Your task to perform on an android device: open app "Roku - Official Remote Control" (install if not already installed) and go to login screen Image 0: 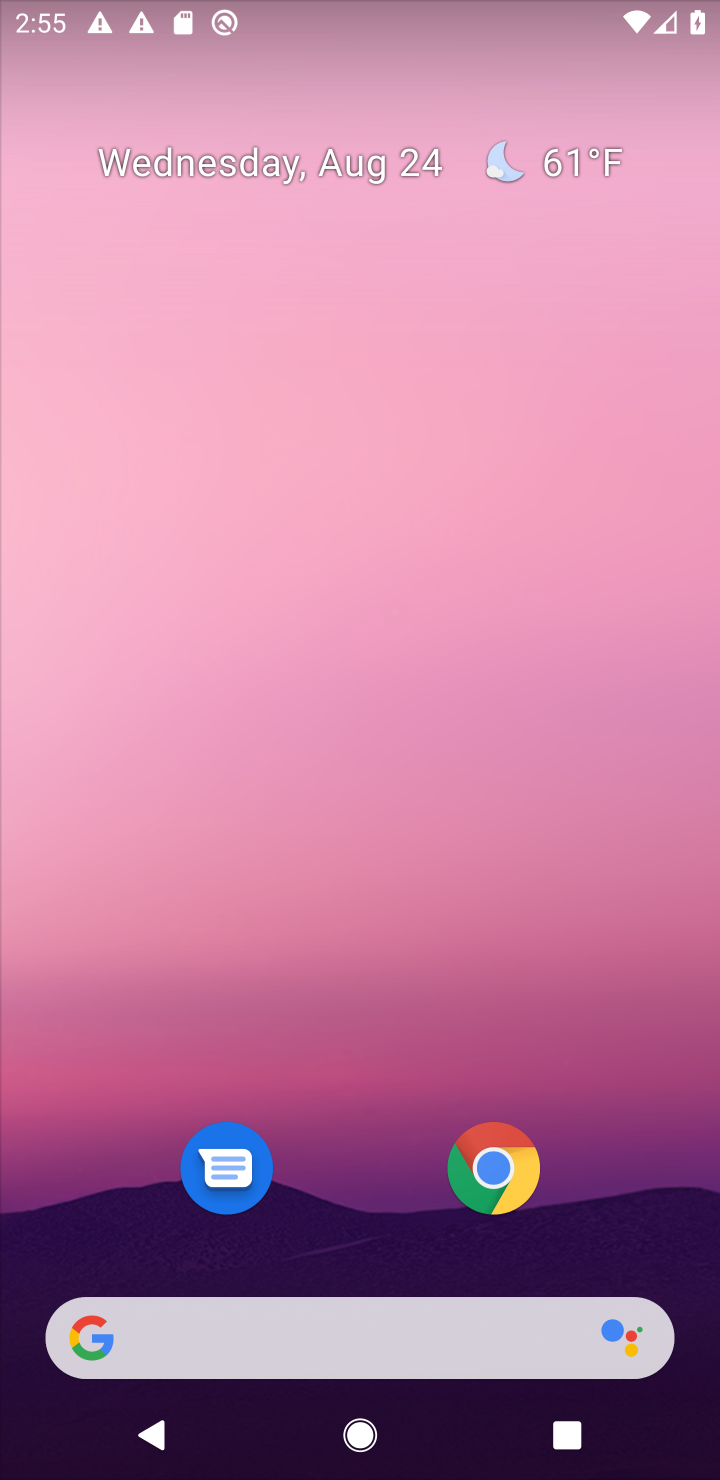
Step 0: drag from (658, 1240) to (502, 3)
Your task to perform on an android device: open app "Roku - Official Remote Control" (install if not already installed) and go to login screen Image 1: 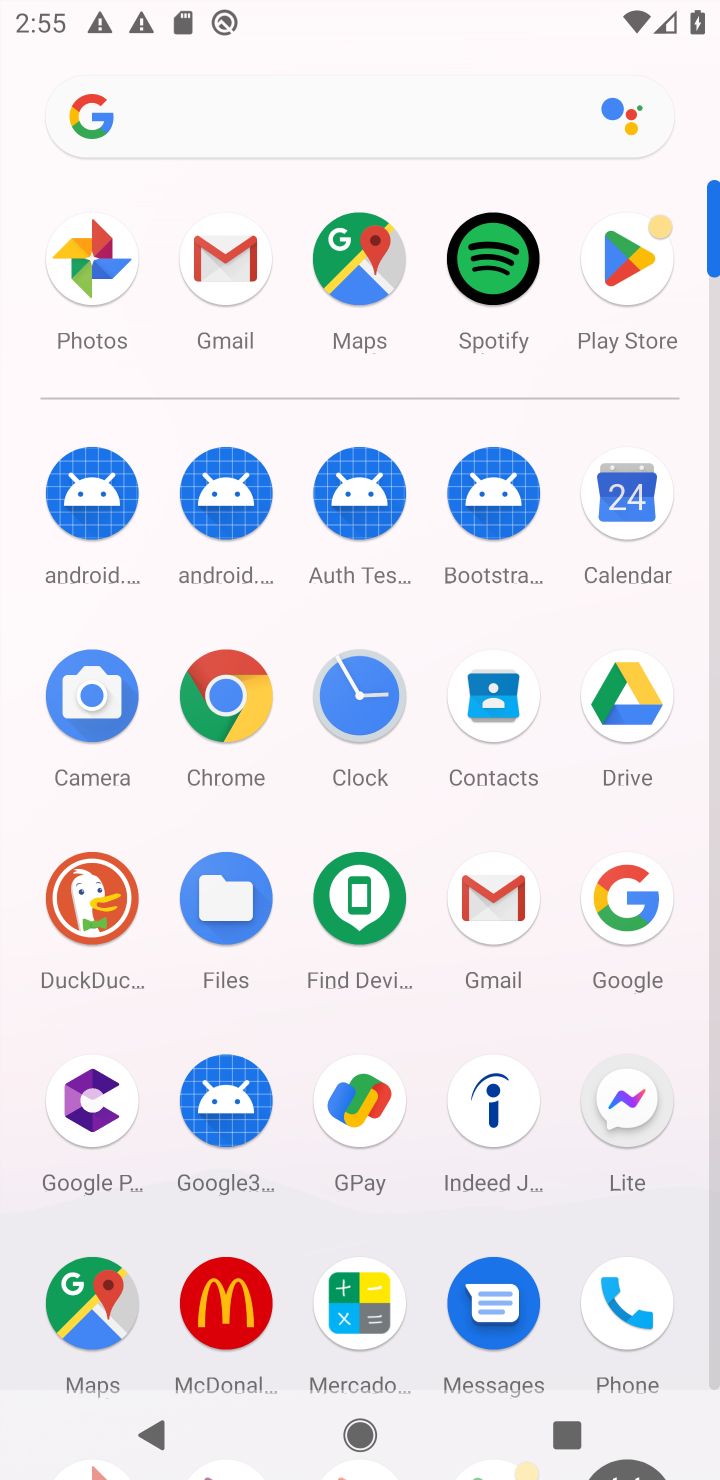
Step 1: click (713, 1358)
Your task to perform on an android device: open app "Roku - Official Remote Control" (install if not already installed) and go to login screen Image 2: 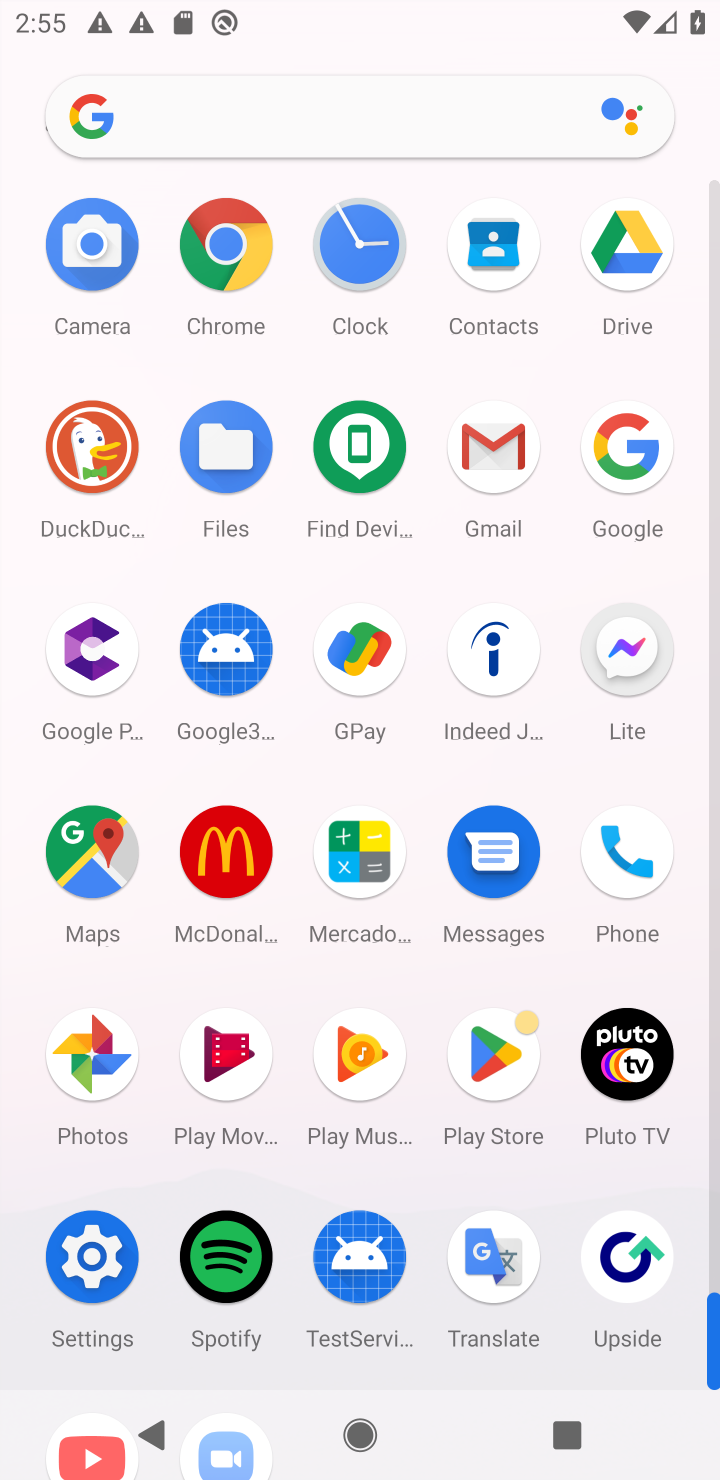
Step 2: click (493, 1050)
Your task to perform on an android device: open app "Roku - Official Remote Control" (install if not already installed) and go to login screen Image 3: 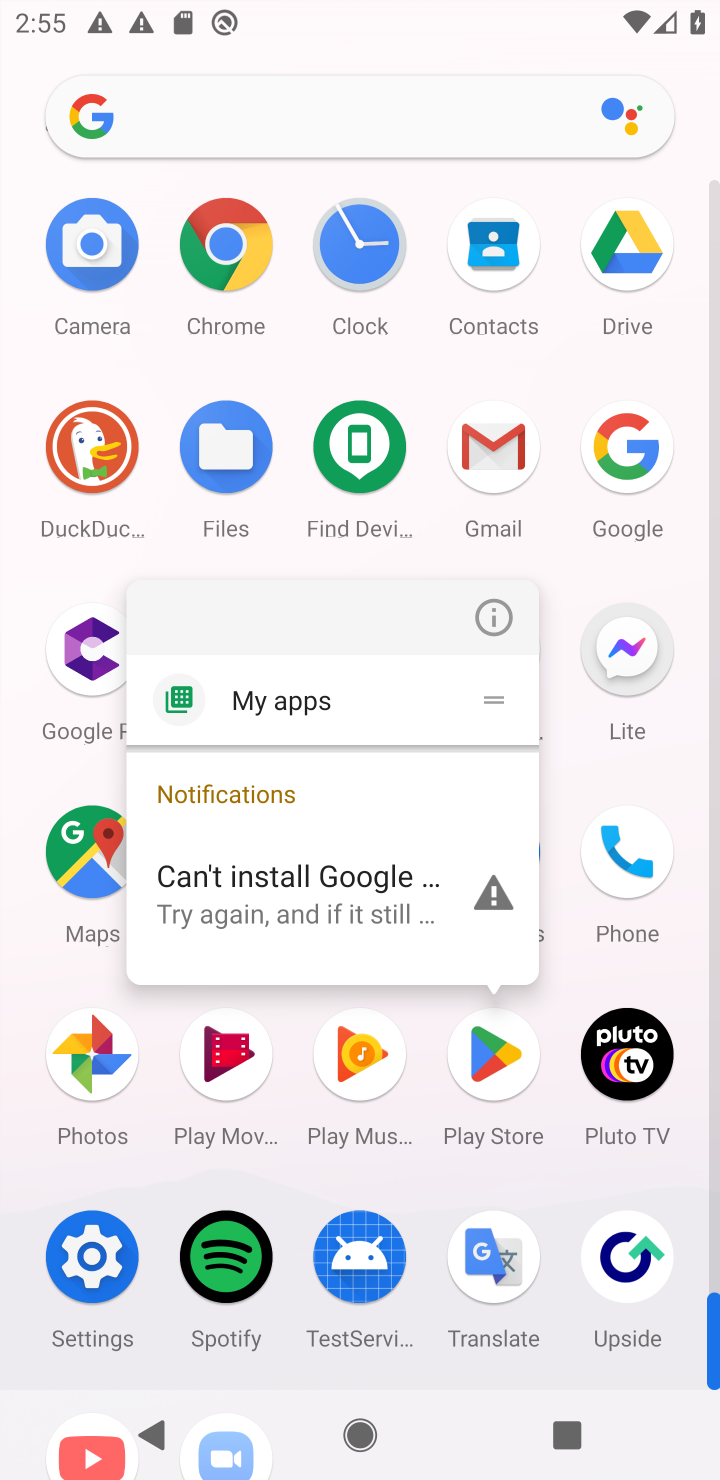
Step 3: click (495, 1054)
Your task to perform on an android device: open app "Roku - Official Remote Control" (install if not already installed) and go to login screen Image 4: 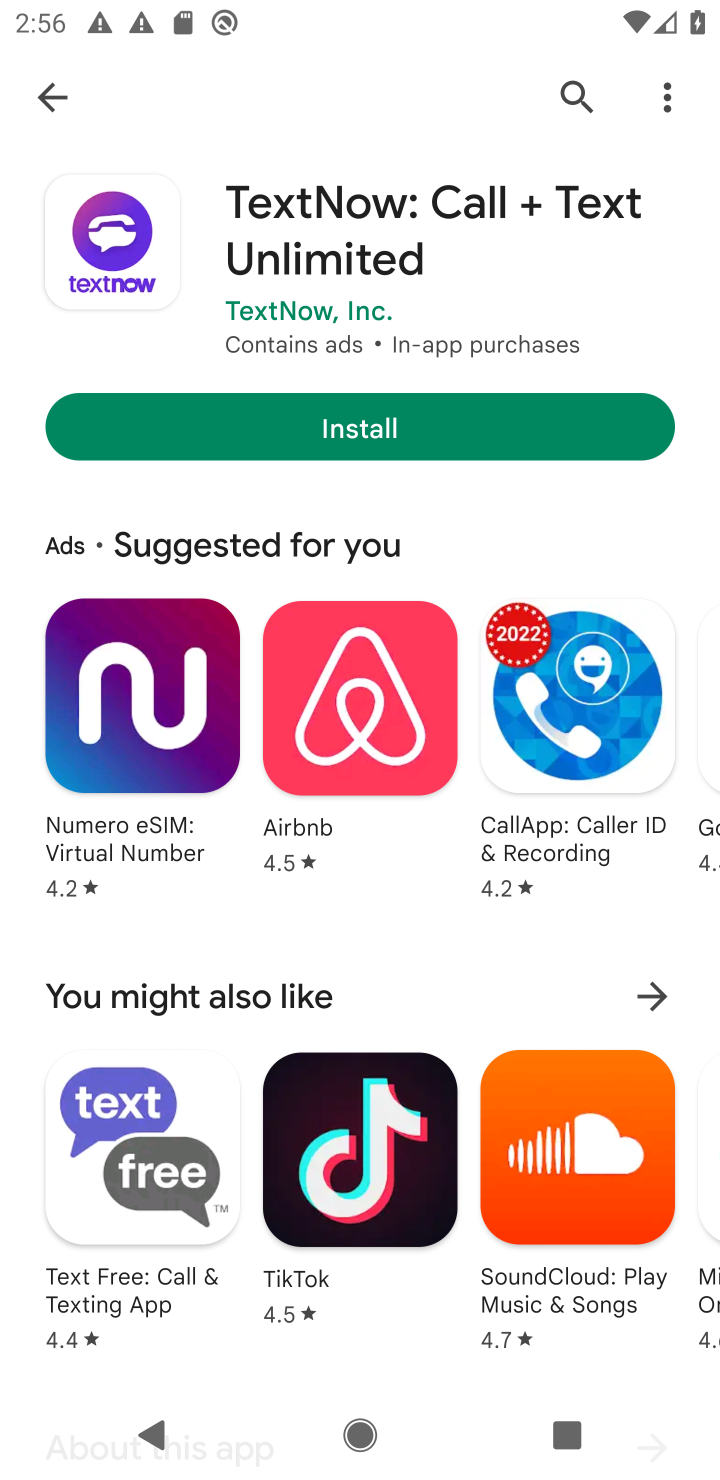
Step 4: click (576, 101)
Your task to perform on an android device: open app "Roku - Official Remote Control" (install if not already installed) and go to login screen Image 5: 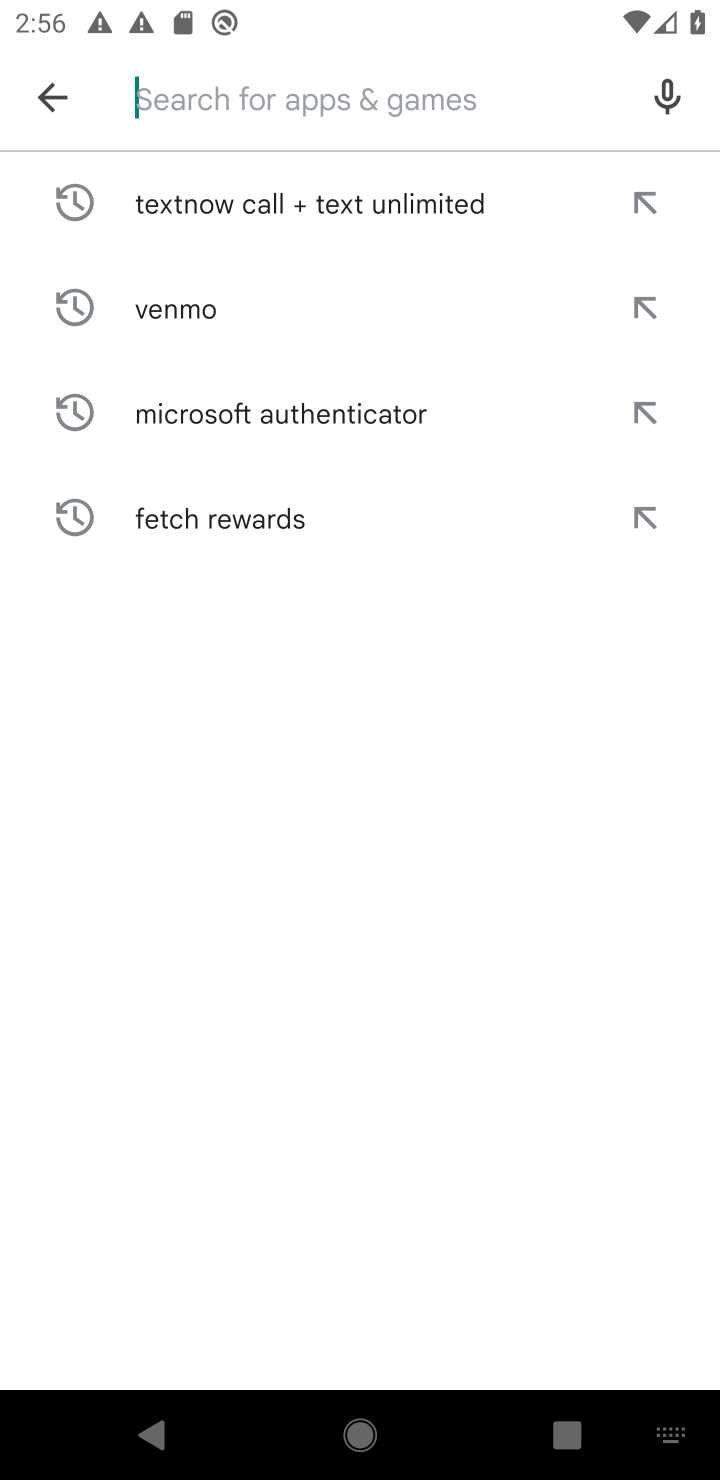
Step 5: type "Roku - Official Remote Contro"
Your task to perform on an android device: open app "Roku - Official Remote Control" (install if not already installed) and go to login screen Image 6: 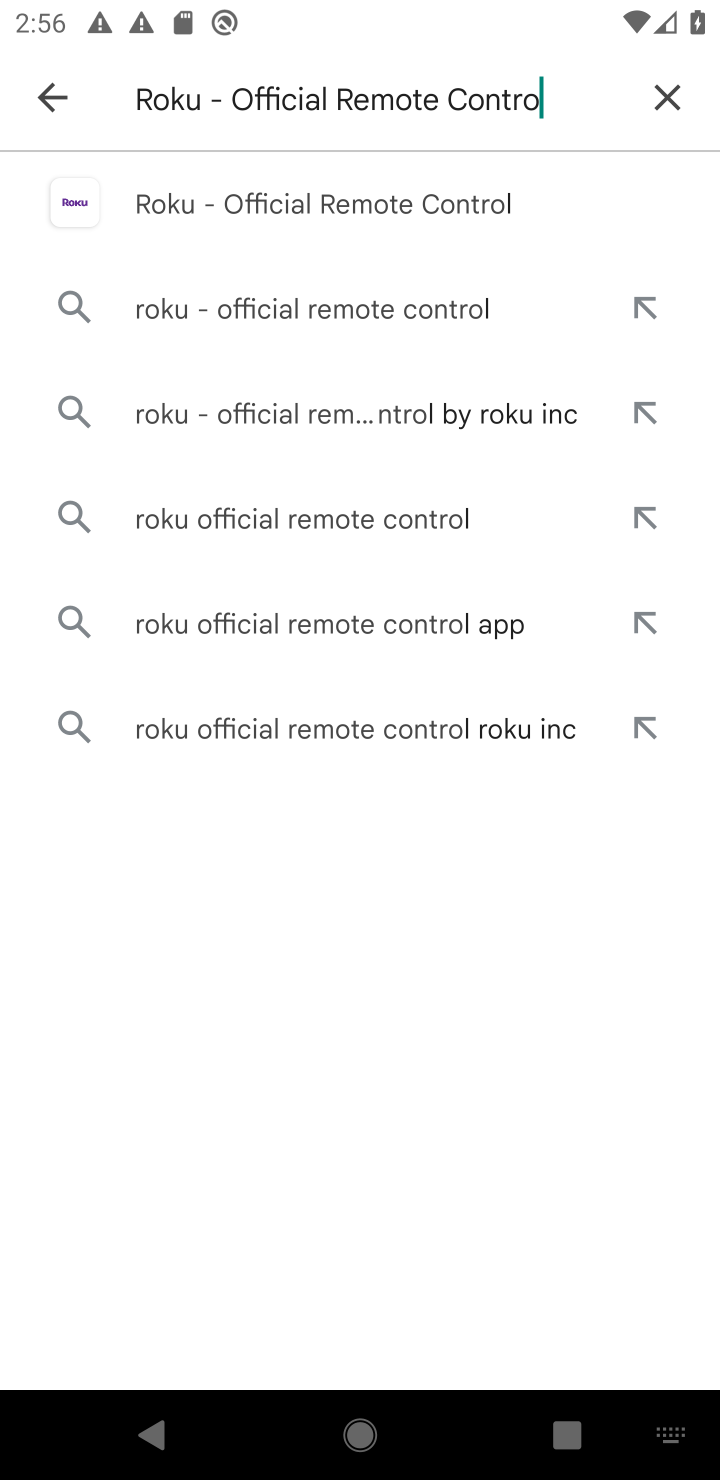
Step 6: click (211, 182)
Your task to perform on an android device: open app "Roku - Official Remote Control" (install if not already installed) and go to login screen Image 7: 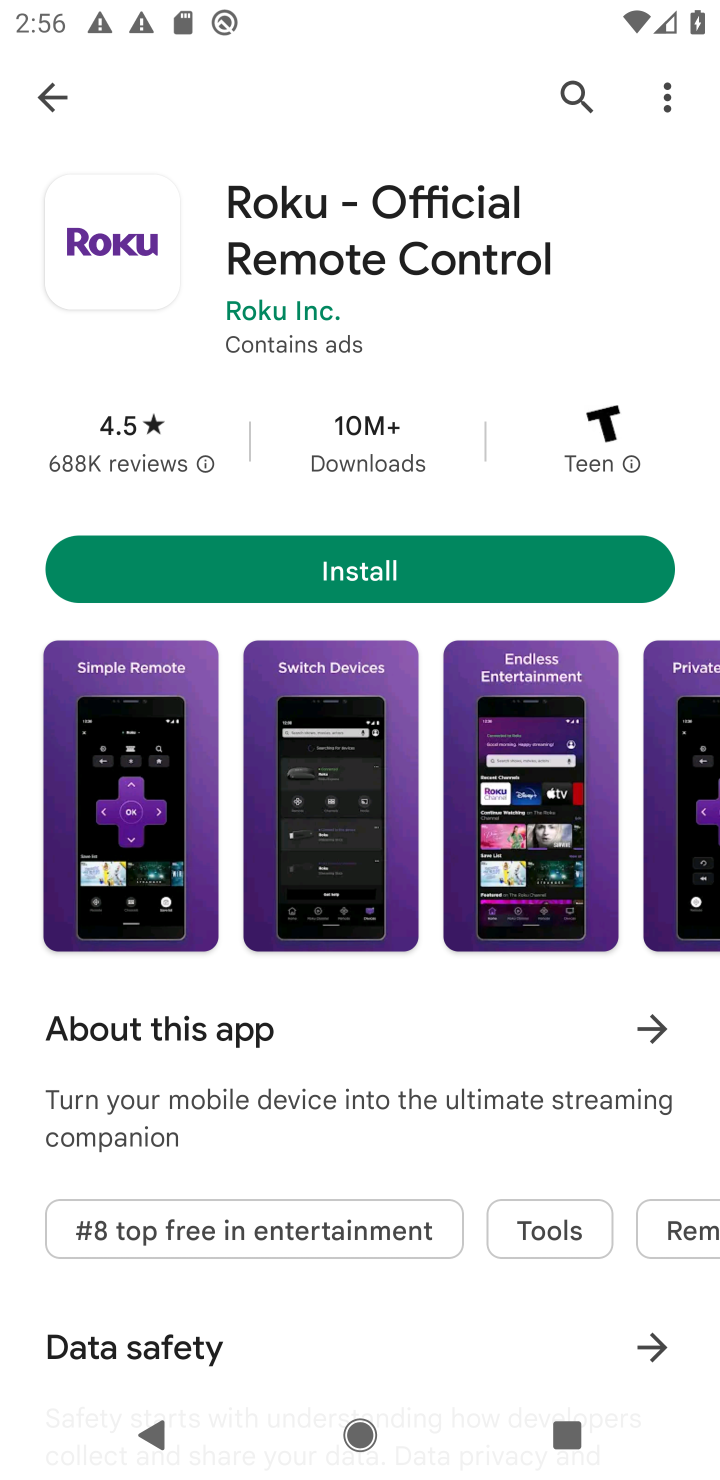
Step 7: click (352, 565)
Your task to perform on an android device: open app "Roku - Official Remote Control" (install if not already installed) and go to login screen Image 8: 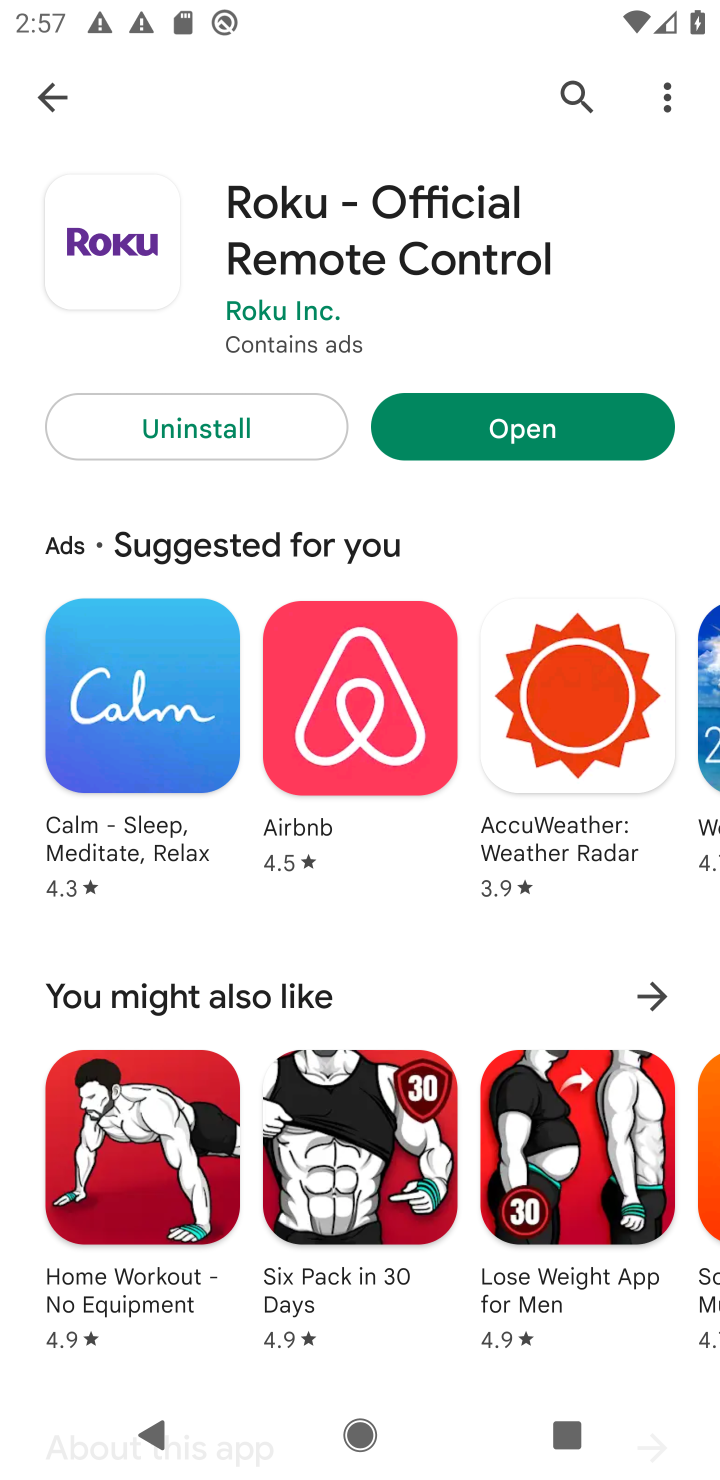
Step 8: click (518, 427)
Your task to perform on an android device: open app "Roku - Official Remote Control" (install if not already installed) and go to login screen Image 9: 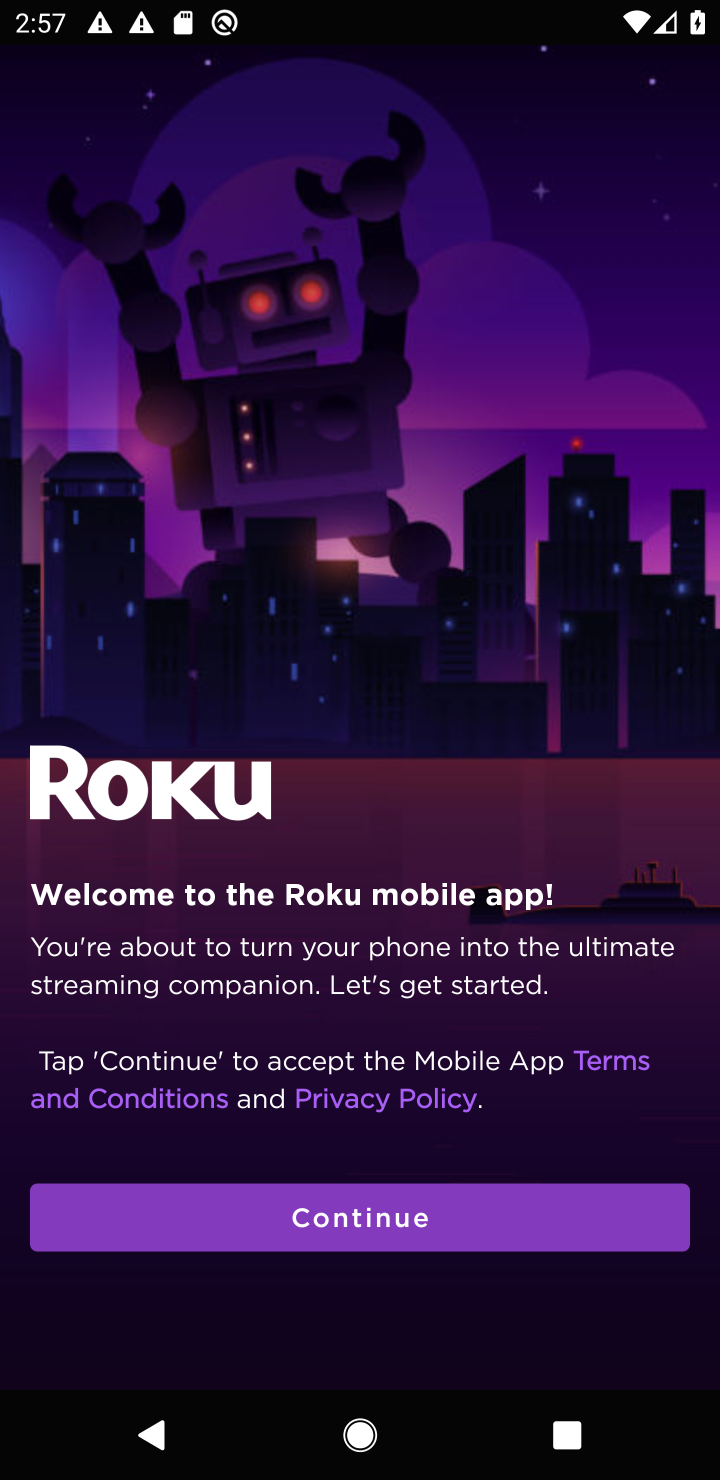
Step 9: task complete